Your task to perform on an android device: Empty the shopping cart on target. Add panasonic triple a to the cart on target, then select checkout. Image 0: 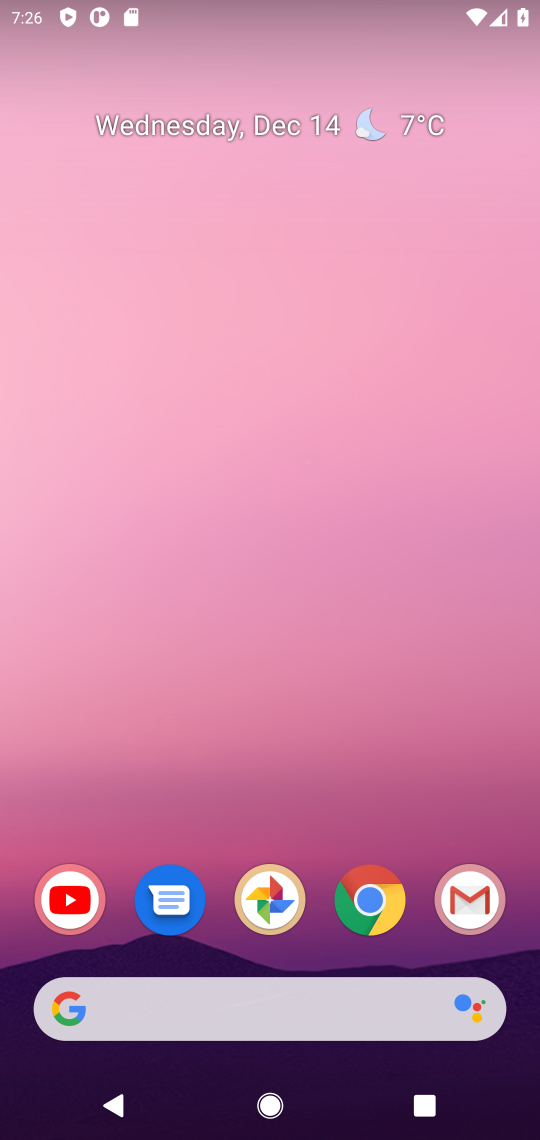
Step 0: click (246, 1008)
Your task to perform on an android device: Empty the shopping cart on target. Add panasonic triple a to the cart on target, then select checkout. Image 1: 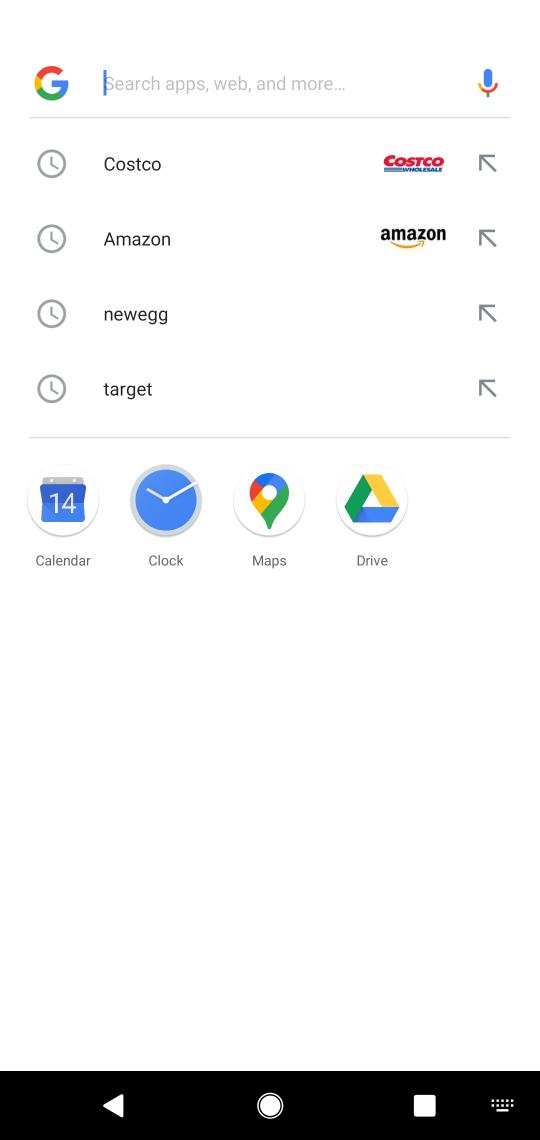
Step 1: click (185, 390)
Your task to perform on an android device: Empty the shopping cart on target. Add panasonic triple a to the cart on target, then select checkout. Image 2: 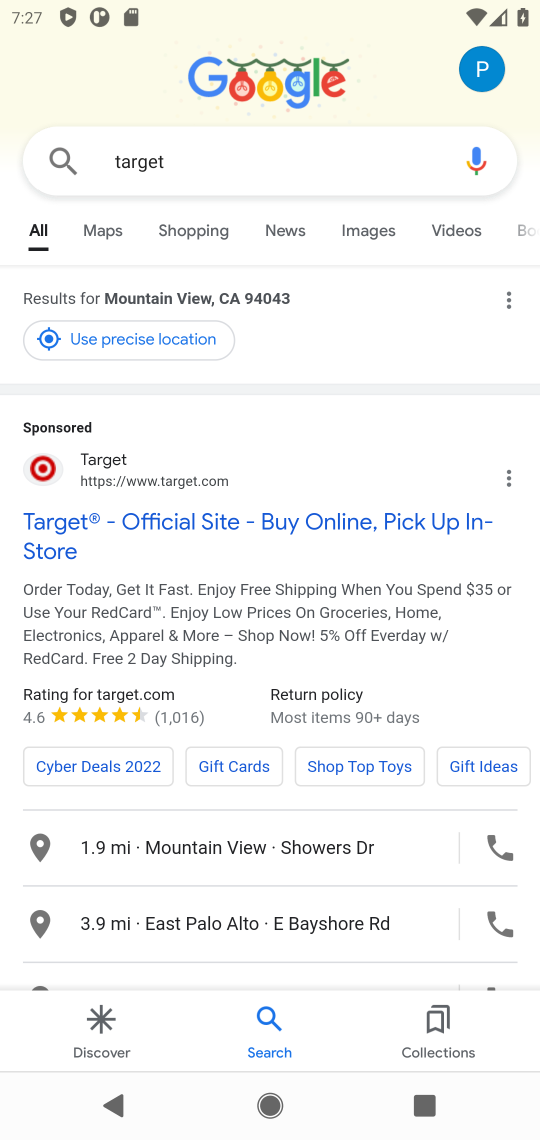
Step 2: click (126, 526)
Your task to perform on an android device: Empty the shopping cart on target. Add panasonic triple a to the cart on target, then select checkout. Image 3: 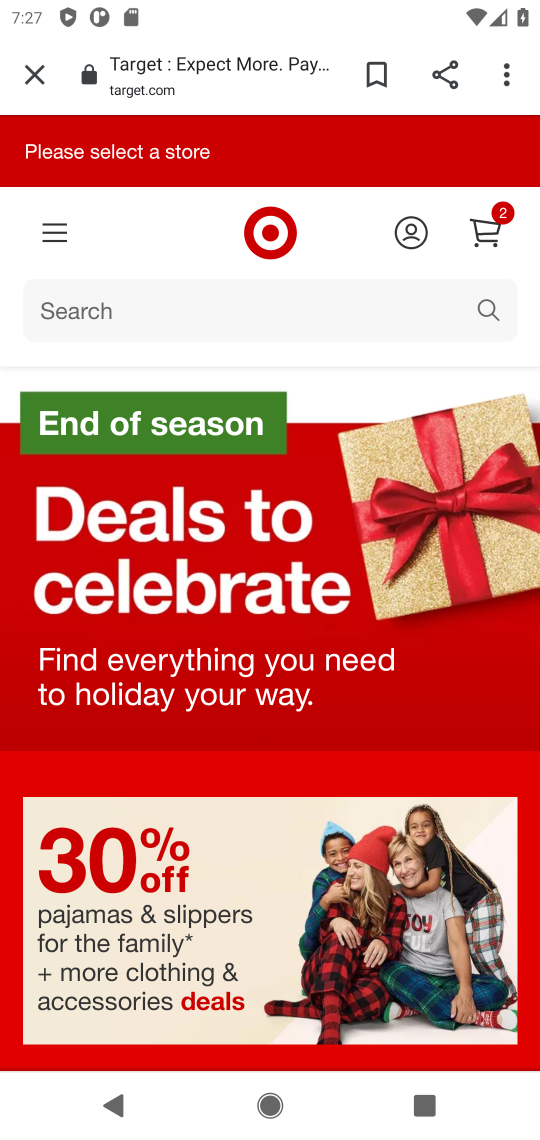
Step 3: click (480, 217)
Your task to perform on an android device: Empty the shopping cart on target. Add panasonic triple a to the cart on target, then select checkout. Image 4: 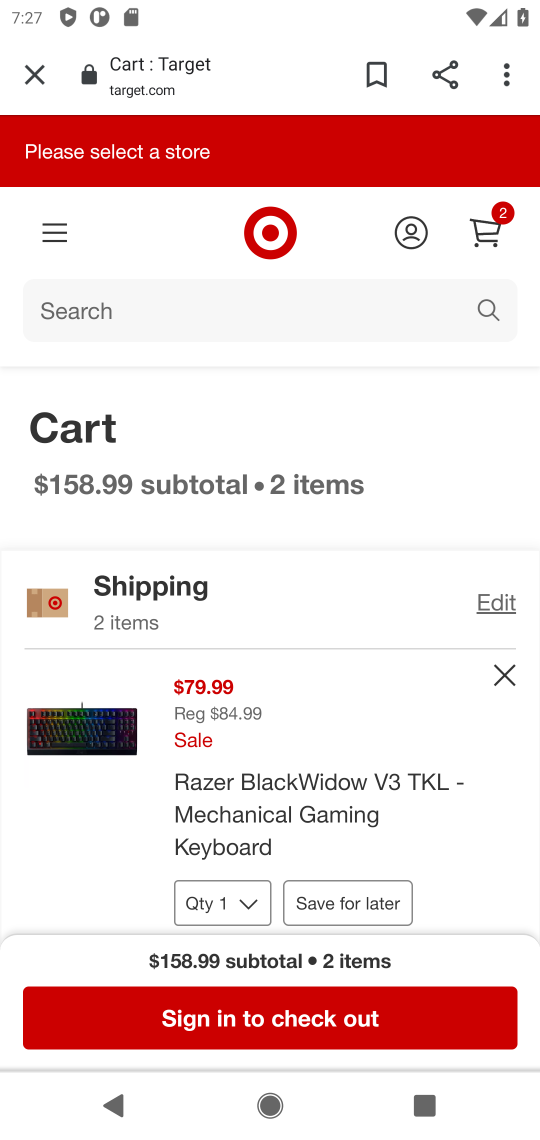
Step 4: click (499, 671)
Your task to perform on an android device: Empty the shopping cart on target. Add panasonic triple a to the cart on target, then select checkout. Image 5: 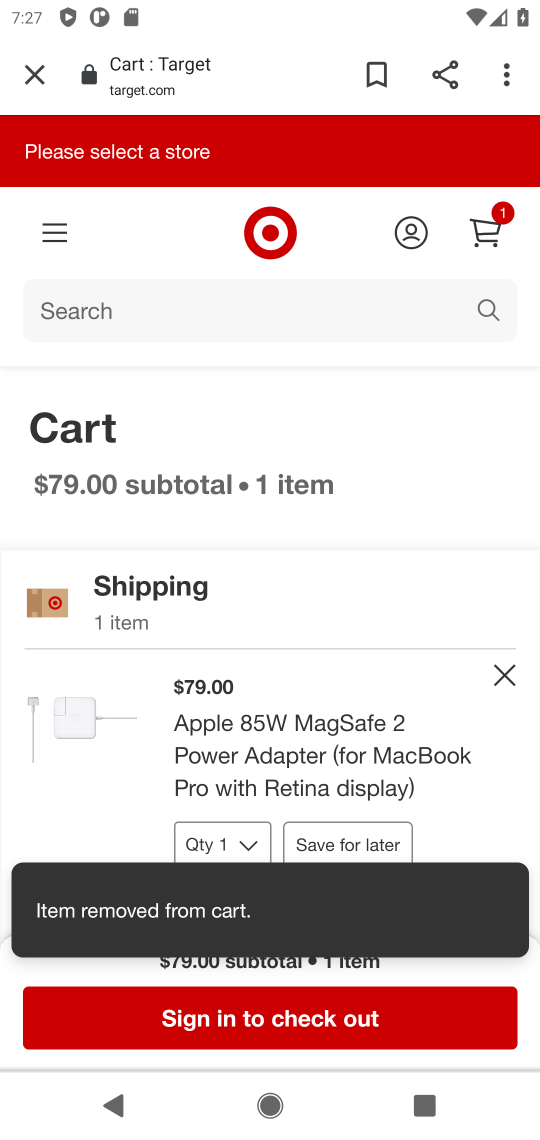
Step 5: click (502, 662)
Your task to perform on an android device: Empty the shopping cart on target. Add panasonic triple a to the cart on target, then select checkout. Image 6: 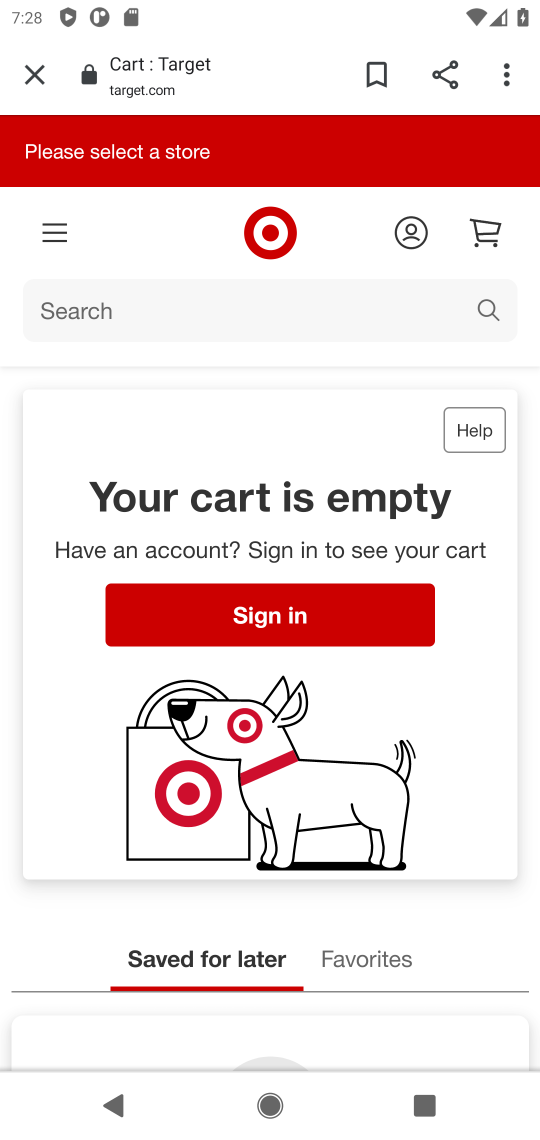
Step 6: click (232, 302)
Your task to perform on an android device: Empty the shopping cart on target. Add panasonic triple a to the cart on target, then select checkout. Image 7: 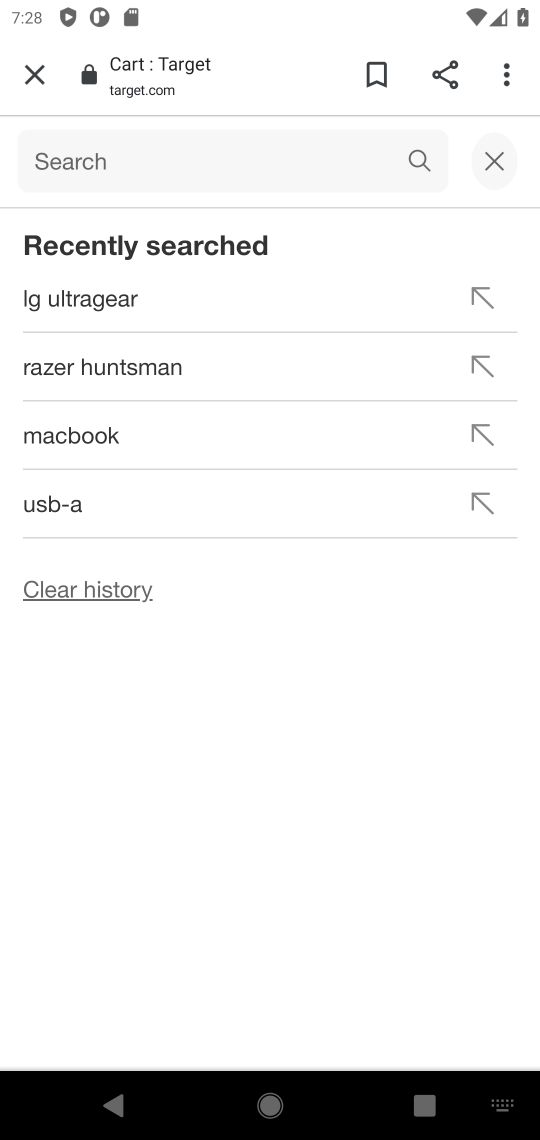
Step 7: type "panasonic triple a"
Your task to perform on an android device: Empty the shopping cart on target. Add panasonic triple a to the cart on target, then select checkout. Image 8: 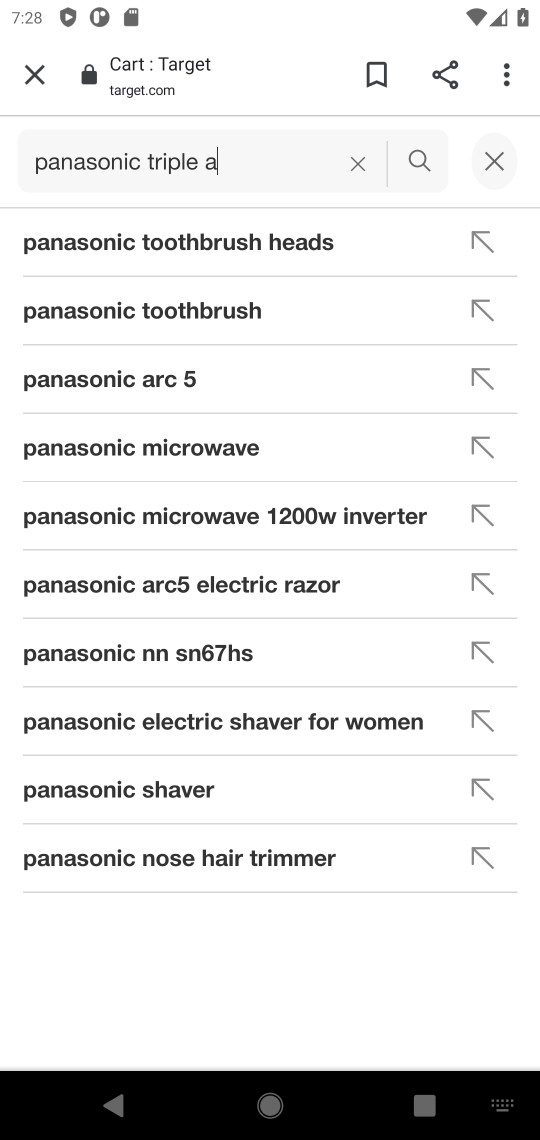
Step 8: click (412, 155)
Your task to perform on an android device: Empty the shopping cart on target. Add panasonic triple a to the cart on target, then select checkout. Image 9: 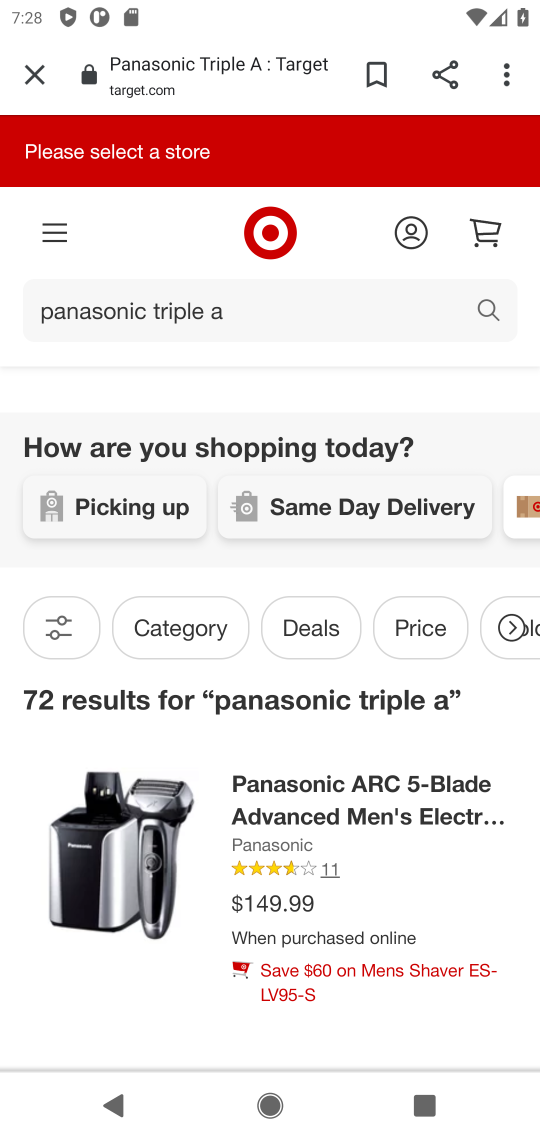
Step 9: drag from (314, 893) to (386, 420)
Your task to perform on an android device: Empty the shopping cart on target. Add panasonic triple a to the cart on target, then select checkout. Image 10: 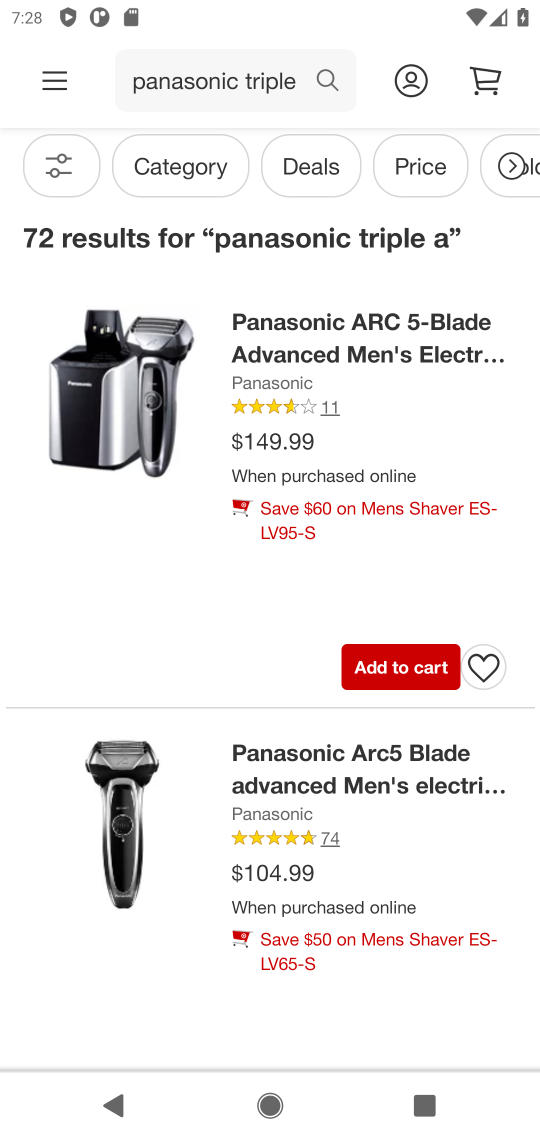
Step 10: click (387, 668)
Your task to perform on an android device: Empty the shopping cart on target. Add panasonic triple a to the cart on target, then select checkout. Image 11: 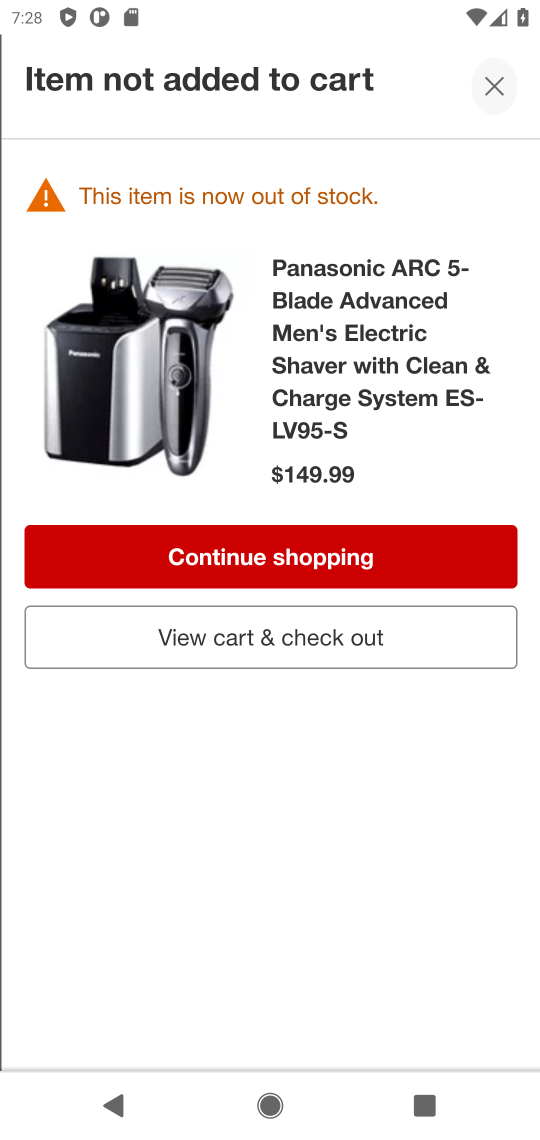
Step 11: click (298, 637)
Your task to perform on an android device: Empty the shopping cart on target. Add panasonic triple a to the cart on target, then select checkout. Image 12: 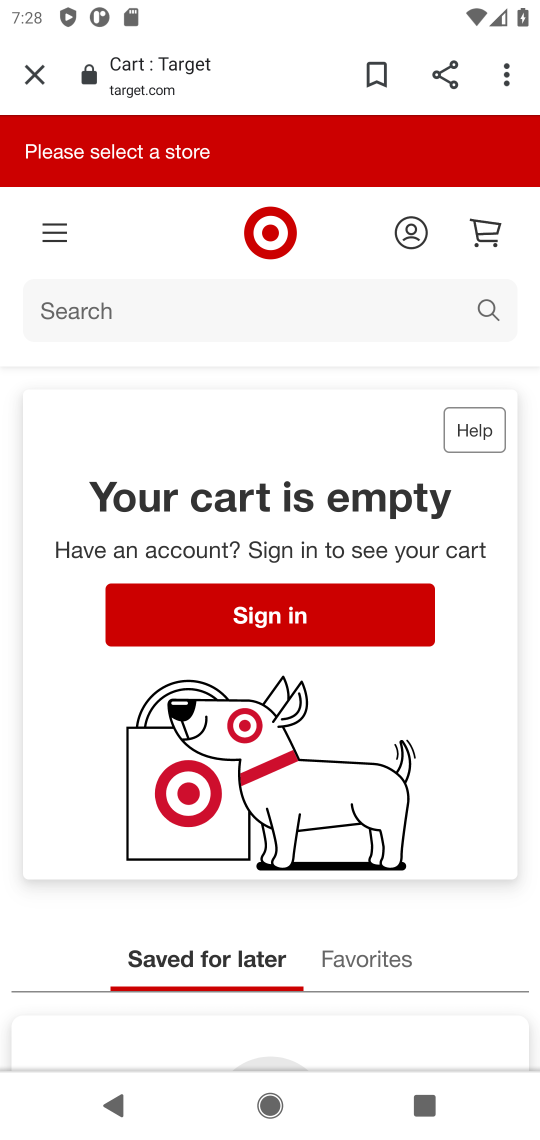
Step 12: task complete